Your task to perform on an android device: Open display settings Image 0: 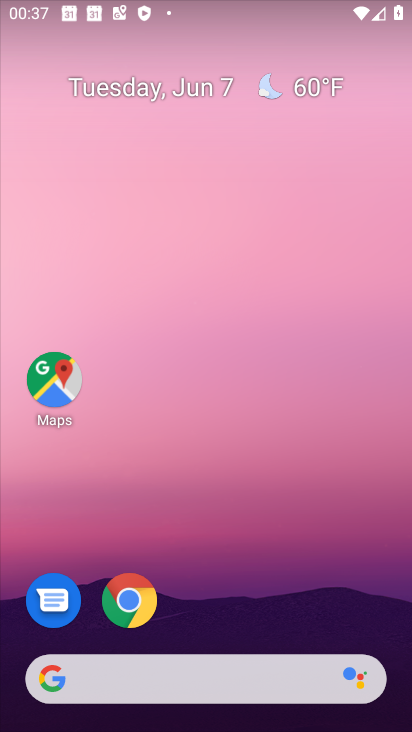
Step 0: drag from (247, 664) to (193, 110)
Your task to perform on an android device: Open display settings Image 1: 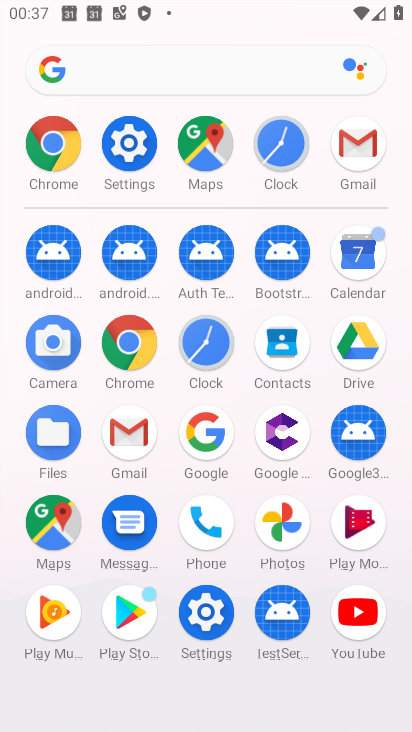
Step 1: click (129, 139)
Your task to perform on an android device: Open display settings Image 2: 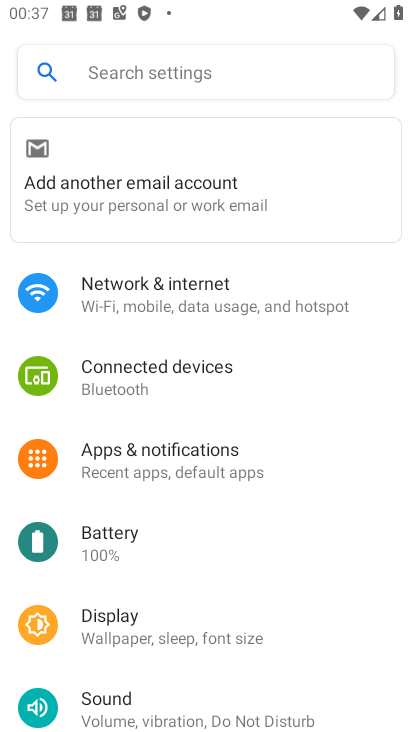
Step 2: click (114, 632)
Your task to perform on an android device: Open display settings Image 3: 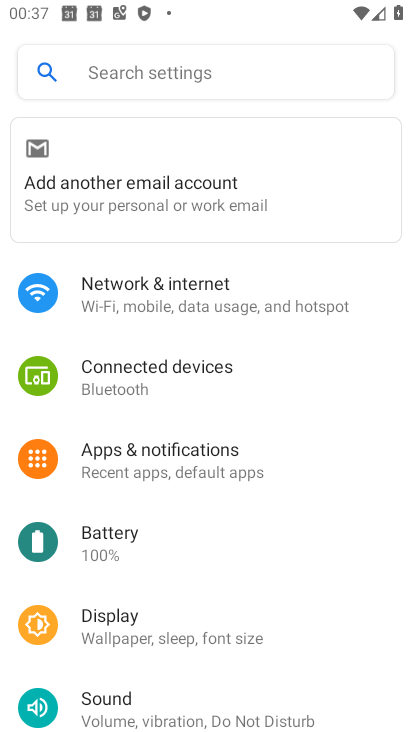
Step 3: click (115, 624)
Your task to perform on an android device: Open display settings Image 4: 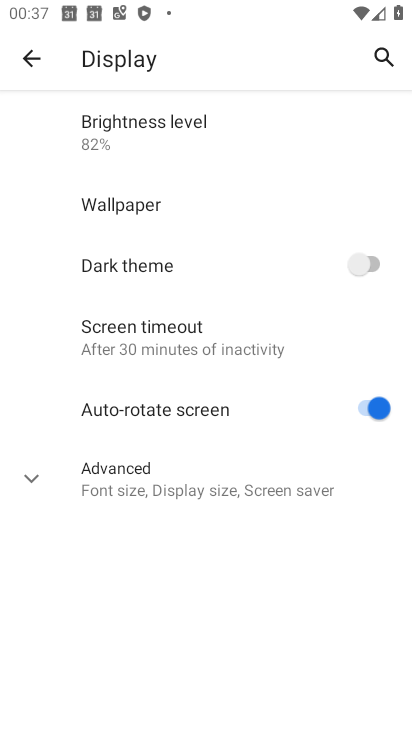
Step 4: task complete